Your task to perform on an android device: see tabs open on other devices in the chrome app Image 0: 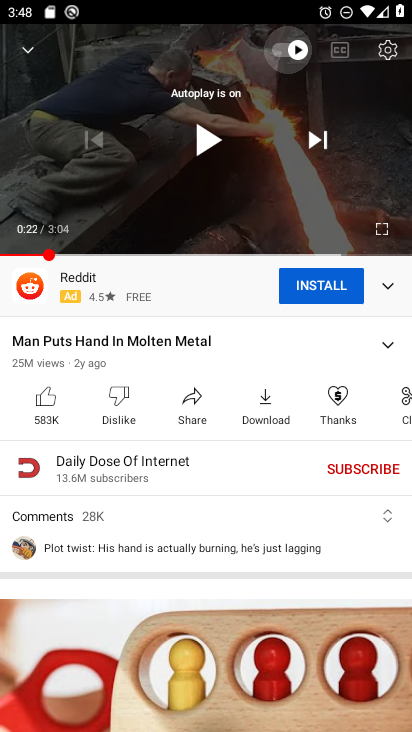
Step 0: press home button
Your task to perform on an android device: see tabs open on other devices in the chrome app Image 1: 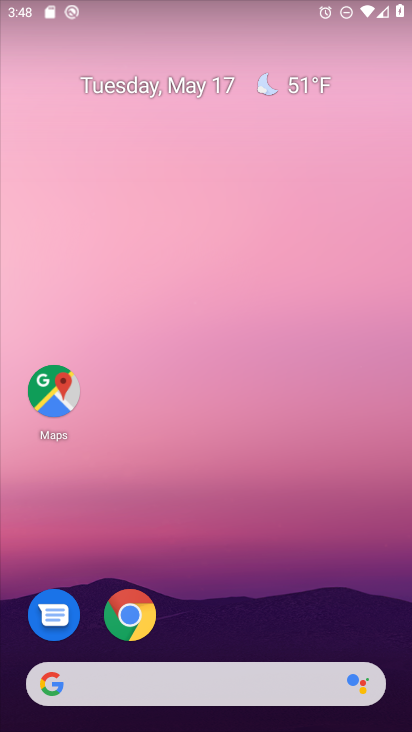
Step 1: click (132, 607)
Your task to perform on an android device: see tabs open on other devices in the chrome app Image 2: 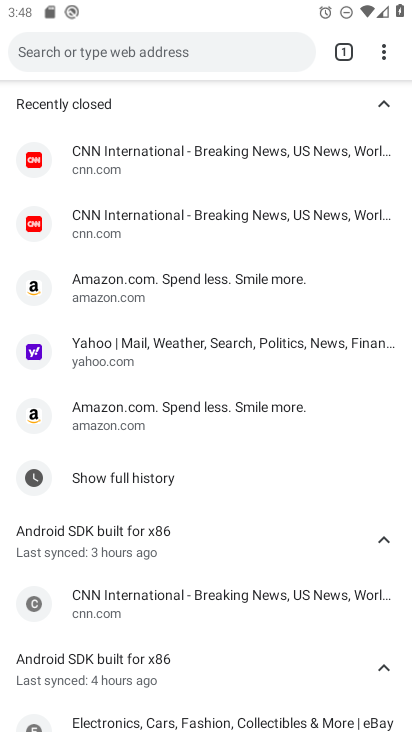
Step 2: click (380, 46)
Your task to perform on an android device: see tabs open on other devices in the chrome app Image 3: 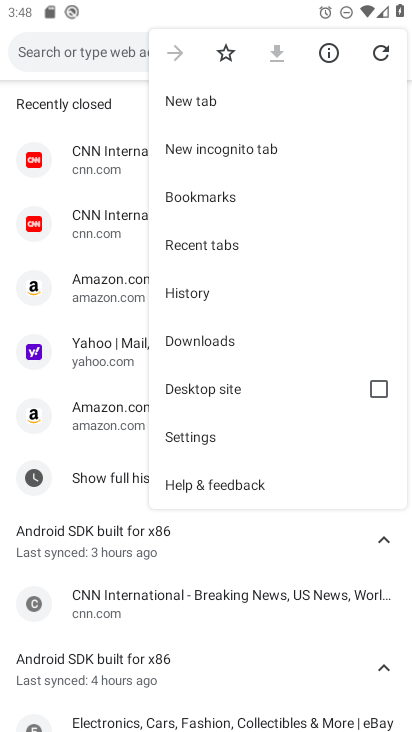
Step 3: click (223, 242)
Your task to perform on an android device: see tabs open on other devices in the chrome app Image 4: 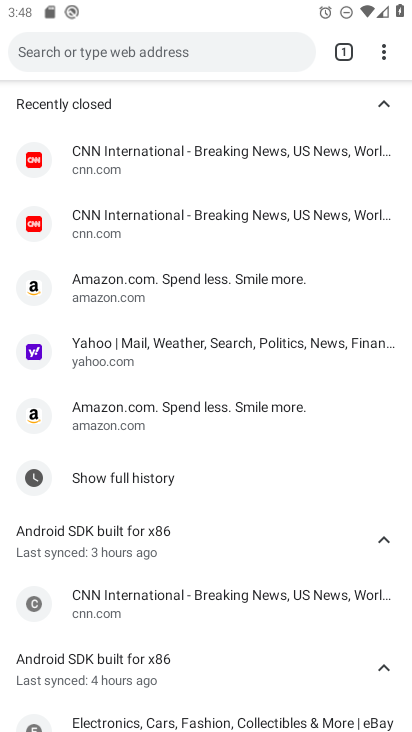
Step 4: task complete